Your task to perform on an android device: Open Google Maps Image 0: 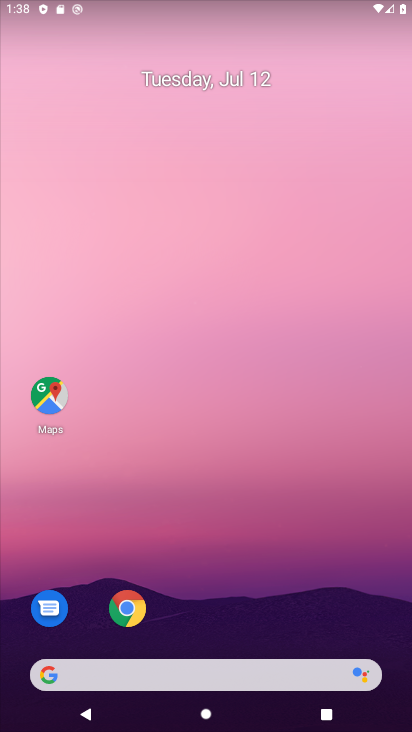
Step 0: drag from (295, 611) to (298, 63)
Your task to perform on an android device: Open Google Maps Image 1: 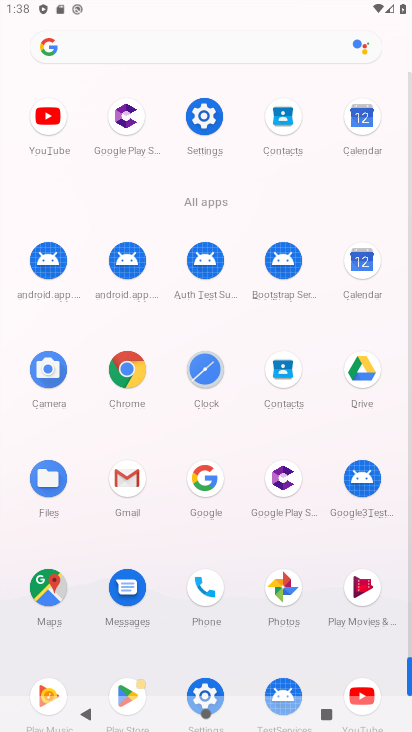
Step 1: click (48, 585)
Your task to perform on an android device: Open Google Maps Image 2: 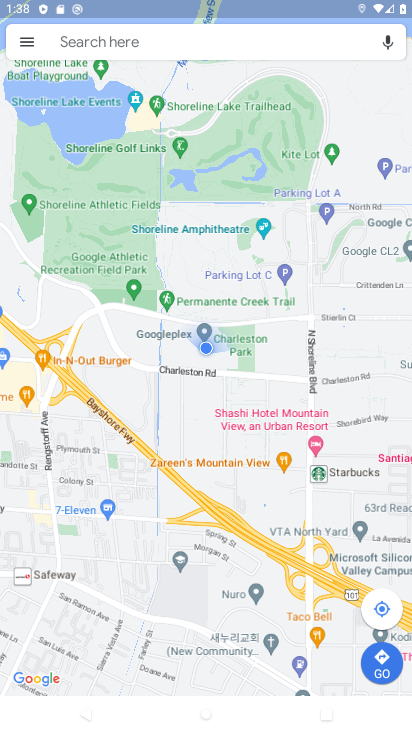
Step 2: task complete